Your task to perform on an android device: turn notification dots off Image 0: 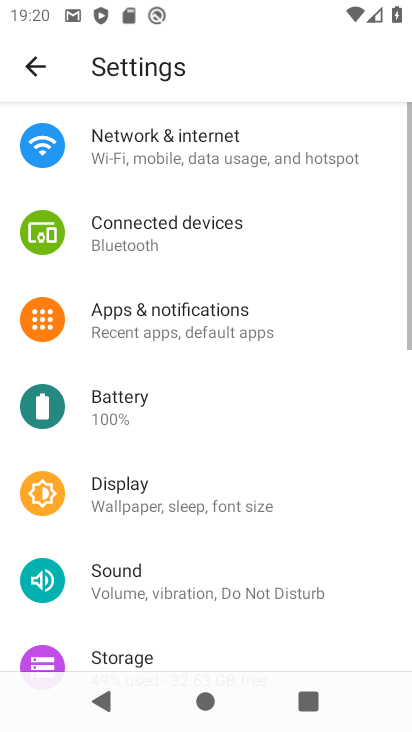
Step 0: click (177, 312)
Your task to perform on an android device: turn notification dots off Image 1: 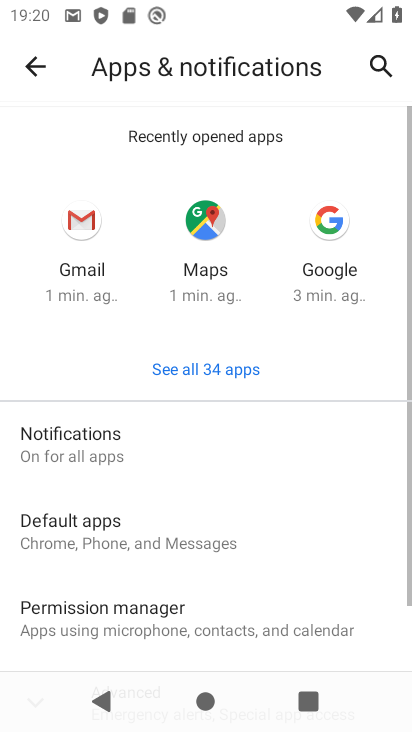
Step 1: click (97, 438)
Your task to perform on an android device: turn notification dots off Image 2: 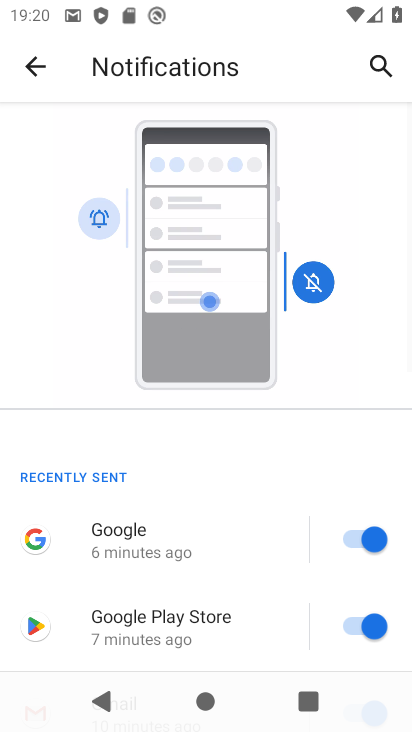
Step 2: drag from (255, 602) to (350, 99)
Your task to perform on an android device: turn notification dots off Image 3: 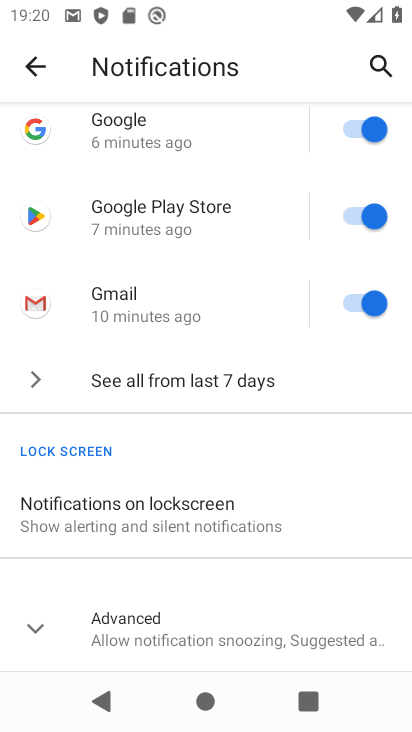
Step 3: click (149, 625)
Your task to perform on an android device: turn notification dots off Image 4: 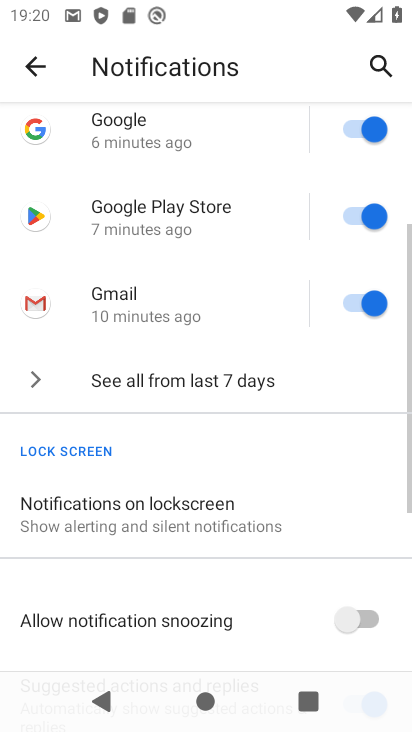
Step 4: drag from (322, 268) to (332, 98)
Your task to perform on an android device: turn notification dots off Image 5: 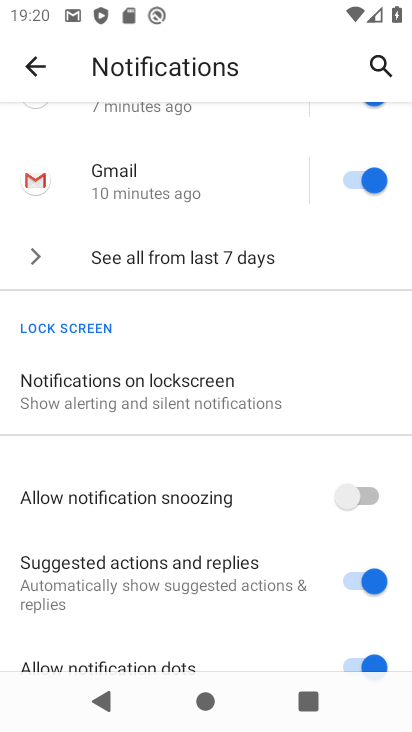
Step 5: drag from (303, 624) to (318, 120)
Your task to perform on an android device: turn notification dots off Image 6: 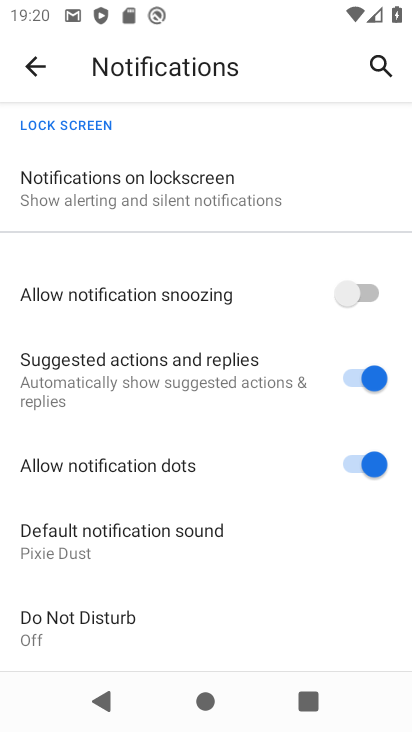
Step 6: click (353, 469)
Your task to perform on an android device: turn notification dots off Image 7: 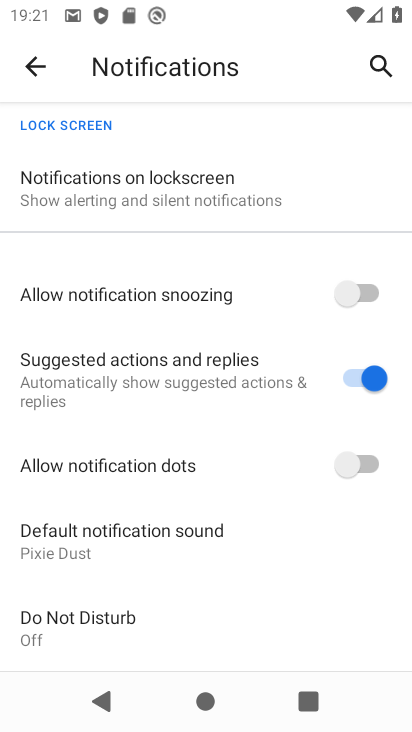
Step 7: task complete